Your task to perform on an android device: open app "ZOOM Cloud Meetings" (install if not already installed) Image 0: 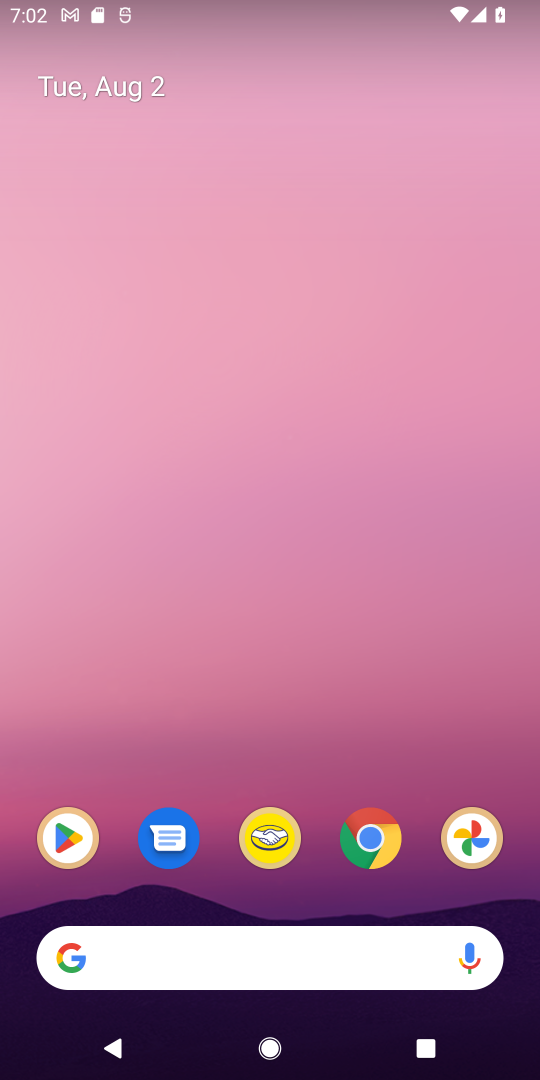
Step 0: click (68, 844)
Your task to perform on an android device: open app "ZOOM Cloud Meetings" (install if not already installed) Image 1: 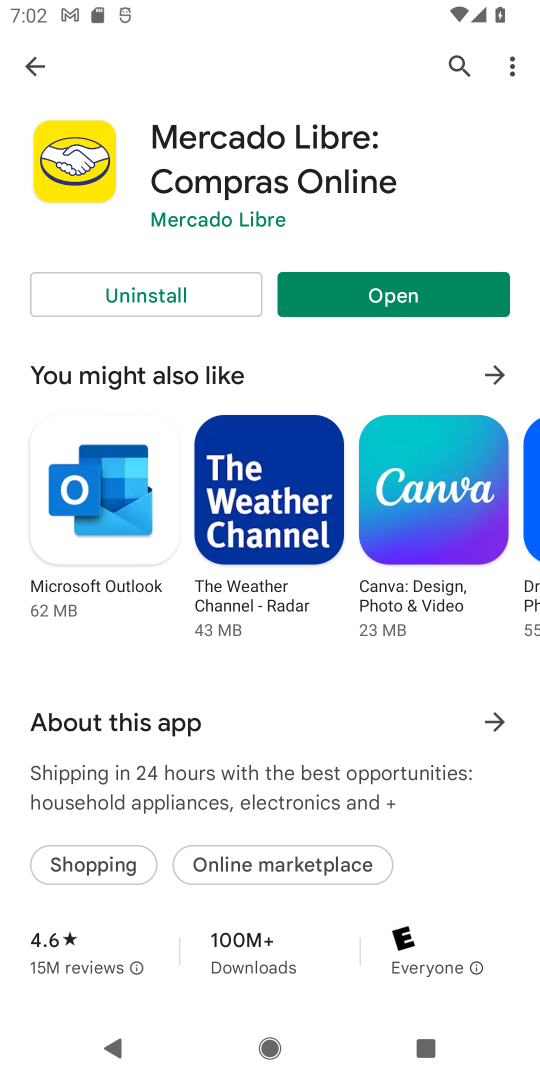
Step 1: click (456, 49)
Your task to perform on an android device: open app "ZOOM Cloud Meetings" (install if not already installed) Image 2: 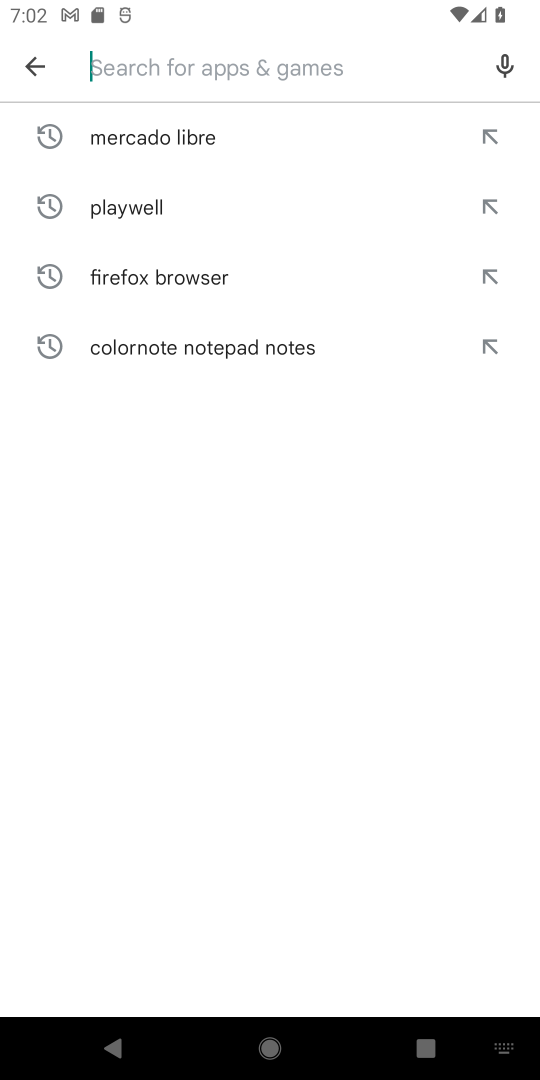
Step 2: type "zoom cloud meetings"
Your task to perform on an android device: open app "ZOOM Cloud Meetings" (install if not already installed) Image 3: 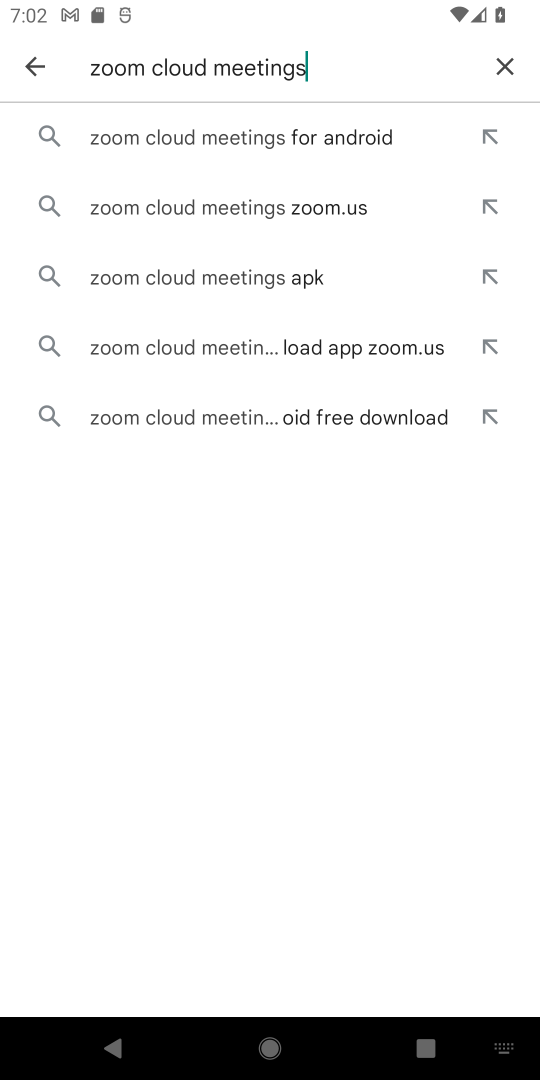
Step 3: click (308, 151)
Your task to perform on an android device: open app "ZOOM Cloud Meetings" (install if not already installed) Image 4: 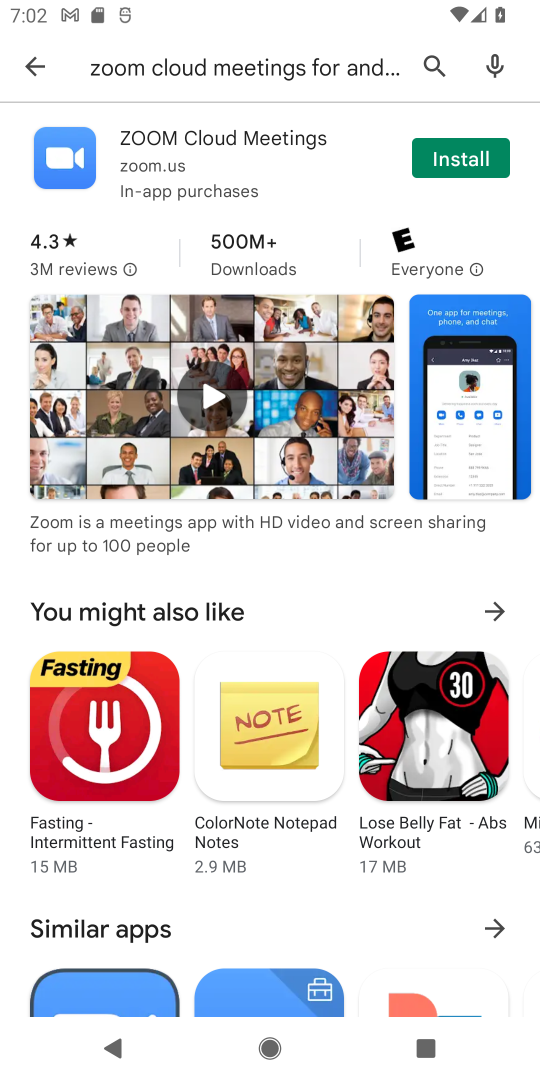
Step 4: click (319, 140)
Your task to perform on an android device: open app "ZOOM Cloud Meetings" (install if not already installed) Image 5: 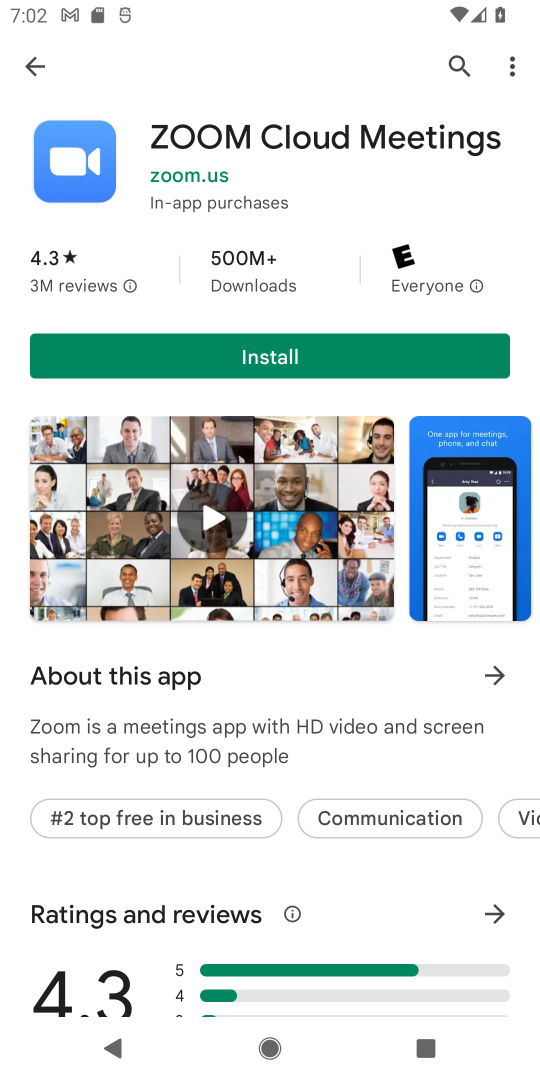
Step 5: click (242, 365)
Your task to perform on an android device: open app "ZOOM Cloud Meetings" (install if not already installed) Image 6: 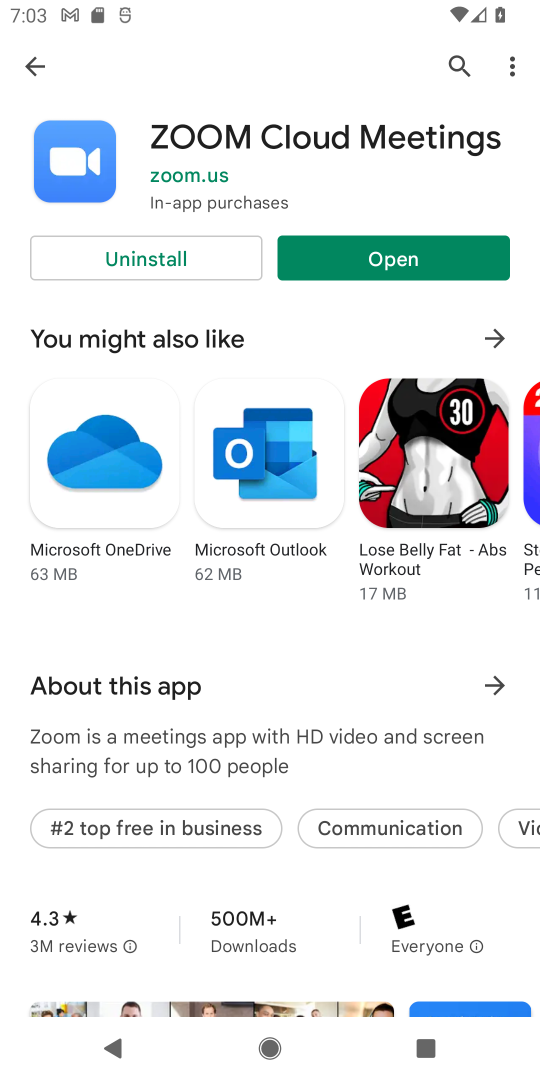
Step 6: click (449, 257)
Your task to perform on an android device: open app "ZOOM Cloud Meetings" (install if not already installed) Image 7: 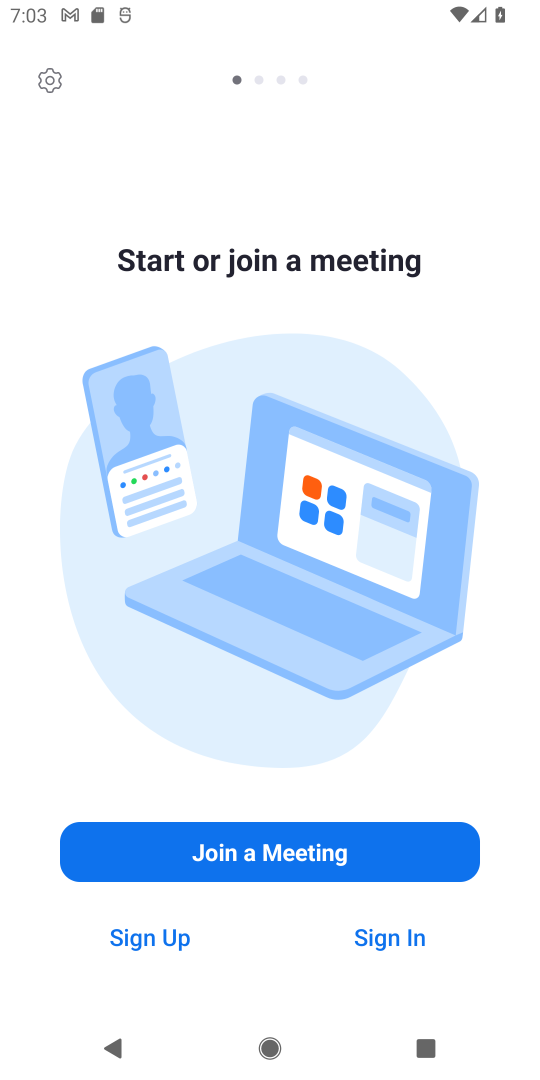
Step 7: task complete